Your task to perform on an android device: Empty the shopping cart on bestbuy. Search for "lenovo thinkpad" on bestbuy, select the first entry, and add it to the cart. Image 0: 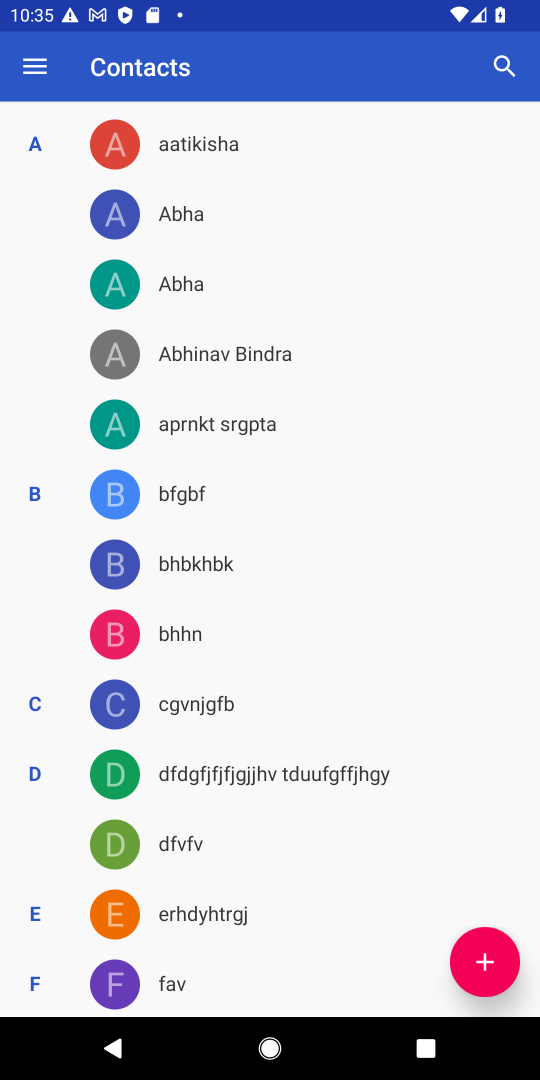
Step 0: press home button
Your task to perform on an android device: Empty the shopping cart on bestbuy. Search for "lenovo thinkpad" on bestbuy, select the first entry, and add it to the cart. Image 1: 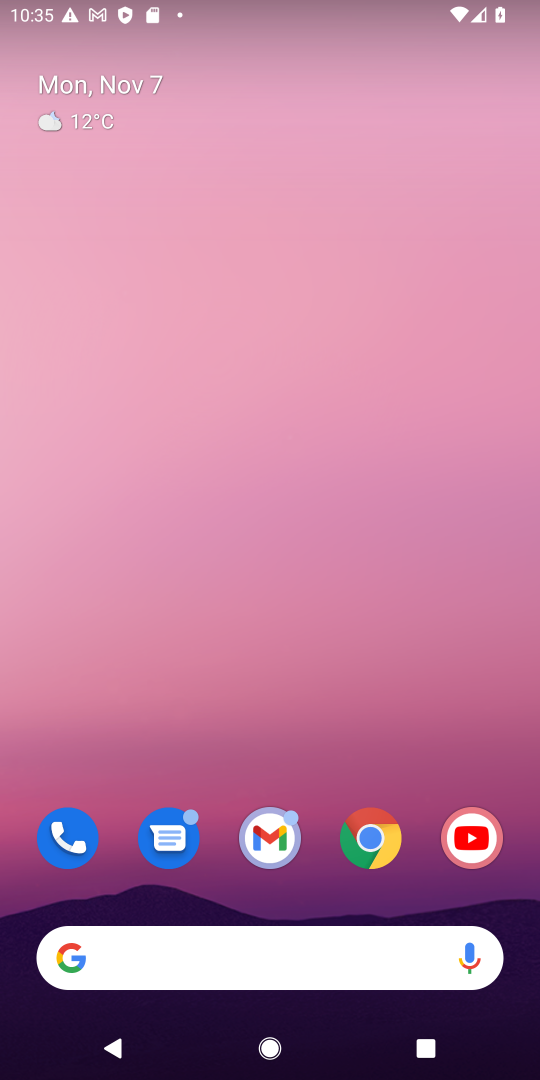
Step 1: click (382, 824)
Your task to perform on an android device: Empty the shopping cart on bestbuy. Search for "lenovo thinkpad" on bestbuy, select the first entry, and add it to the cart. Image 2: 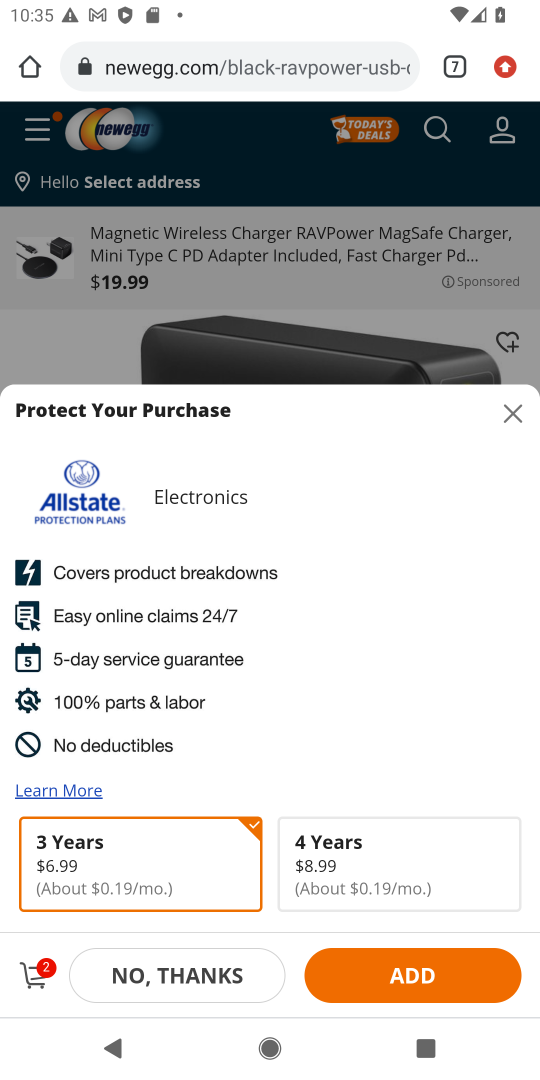
Step 2: click (517, 404)
Your task to perform on an android device: Empty the shopping cart on bestbuy. Search for "lenovo thinkpad" on bestbuy, select the first entry, and add it to the cart. Image 3: 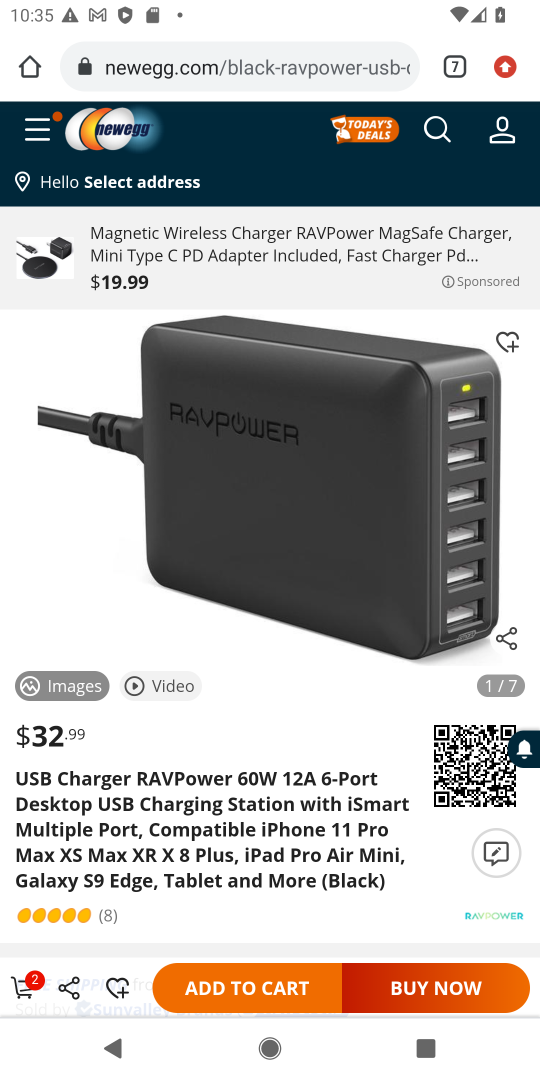
Step 3: click (461, 70)
Your task to perform on an android device: Empty the shopping cart on bestbuy. Search for "lenovo thinkpad" on bestbuy, select the first entry, and add it to the cart. Image 4: 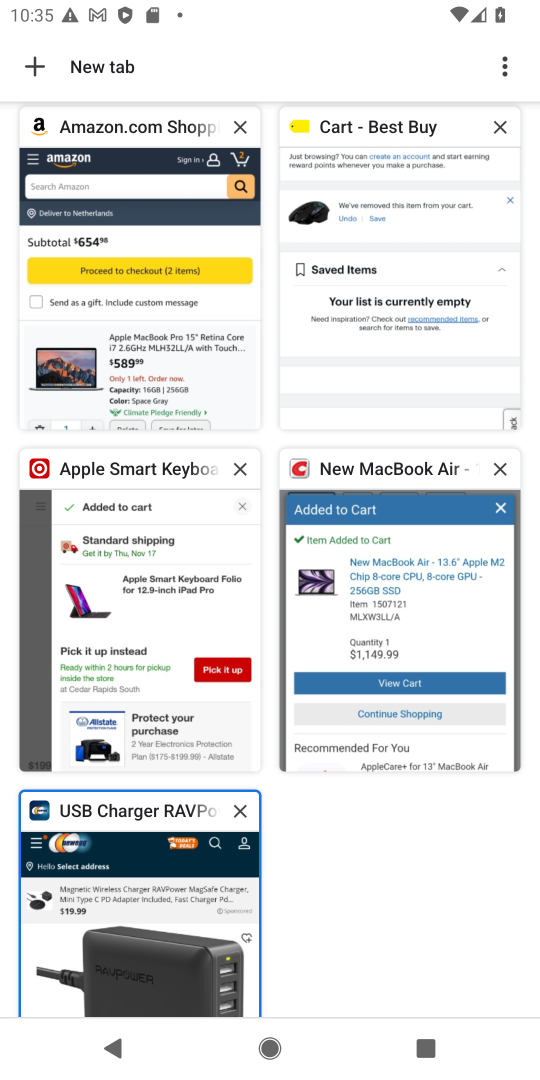
Step 4: click (391, 258)
Your task to perform on an android device: Empty the shopping cart on bestbuy. Search for "lenovo thinkpad" on bestbuy, select the first entry, and add it to the cart. Image 5: 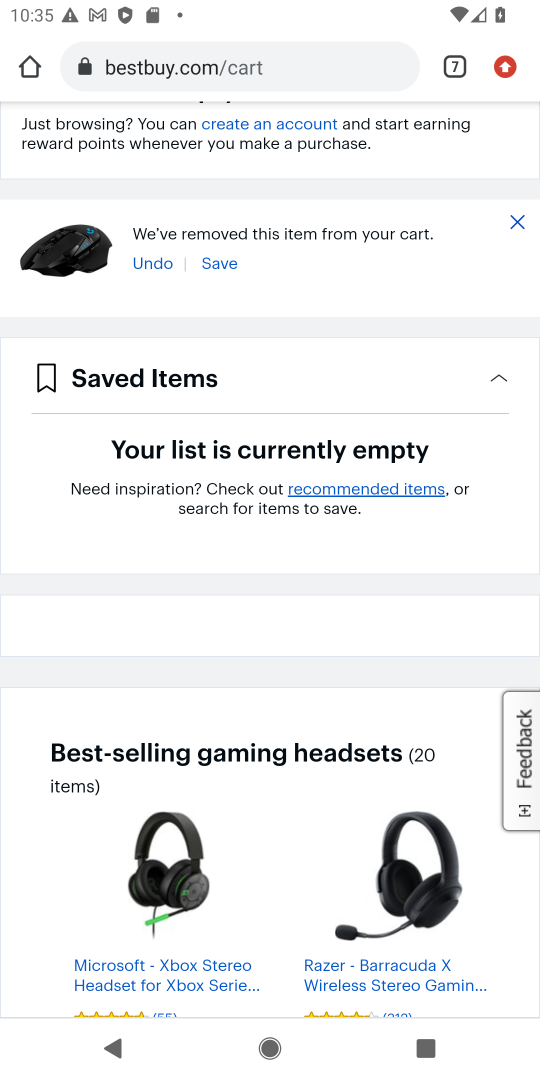
Step 5: drag from (381, 273) to (330, 804)
Your task to perform on an android device: Empty the shopping cart on bestbuy. Search for "lenovo thinkpad" on bestbuy, select the first entry, and add it to the cart. Image 6: 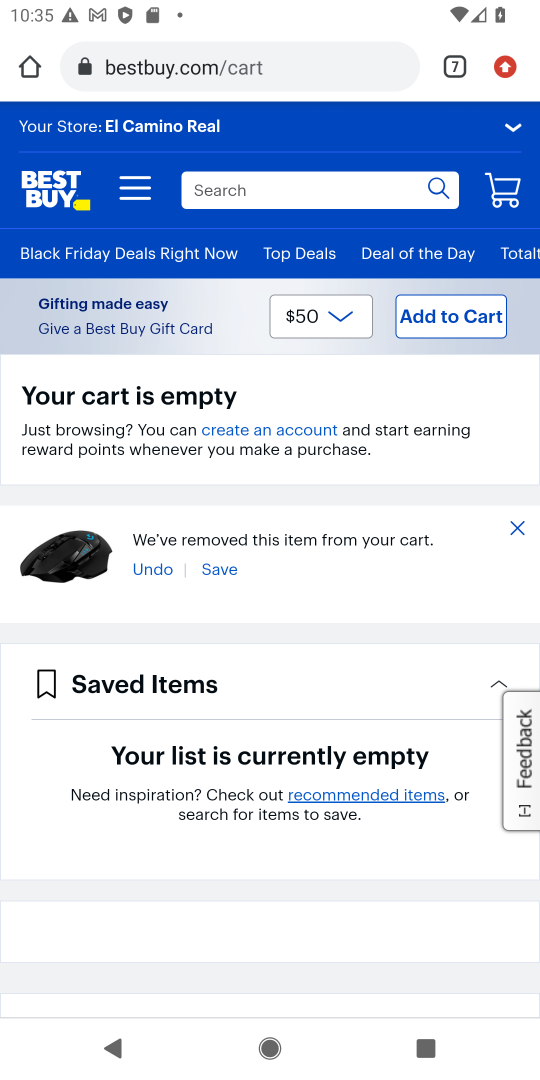
Step 6: click (197, 187)
Your task to perform on an android device: Empty the shopping cart on bestbuy. Search for "lenovo thinkpad" on bestbuy, select the first entry, and add it to the cart. Image 7: 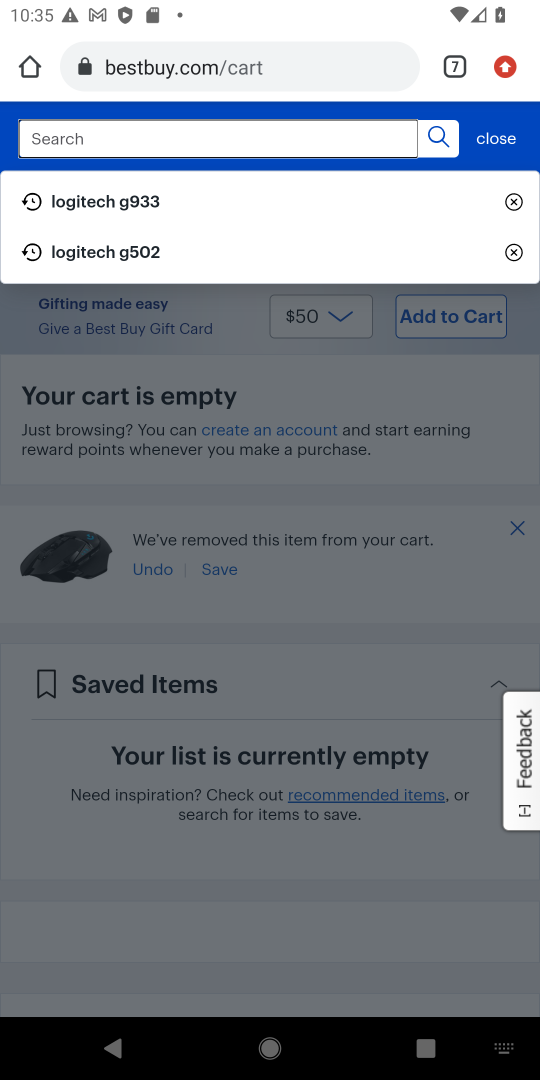
Step 7: type "lenovo thinkpad"
Your task to perform on an android device: Empty the shopping cart on bestbuy. Search for "lenovo thinkpad" on bestbuy, select the first entry, and add it to the cart. Image 8: 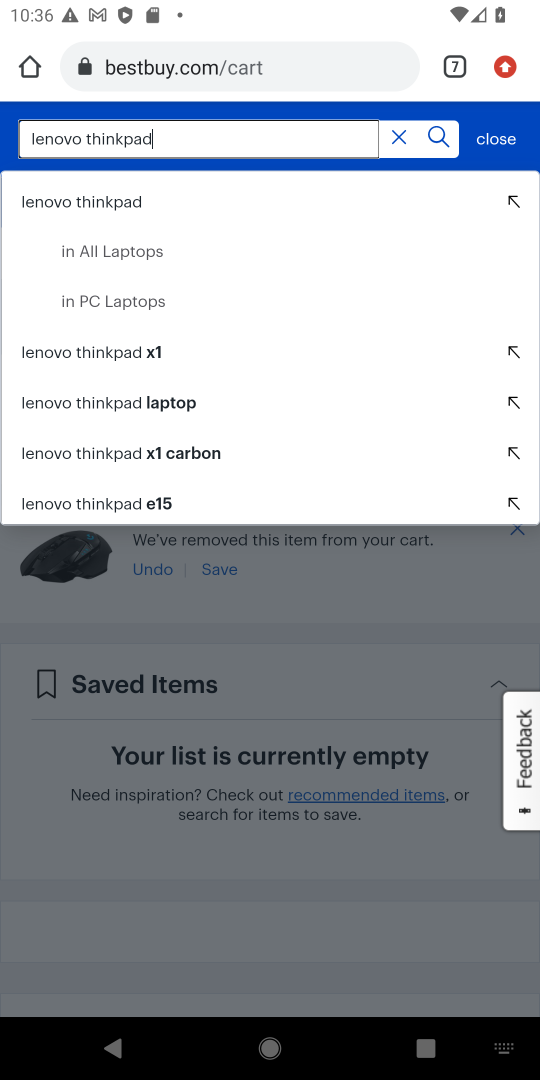
Step 8: click (114, 195)
Your task to perform on an android device: Empty the shopping cart on bestbuy. Search for "lenovo thinkpad" on bestbuy, select the first entry, and add it to the cart. Image 9: 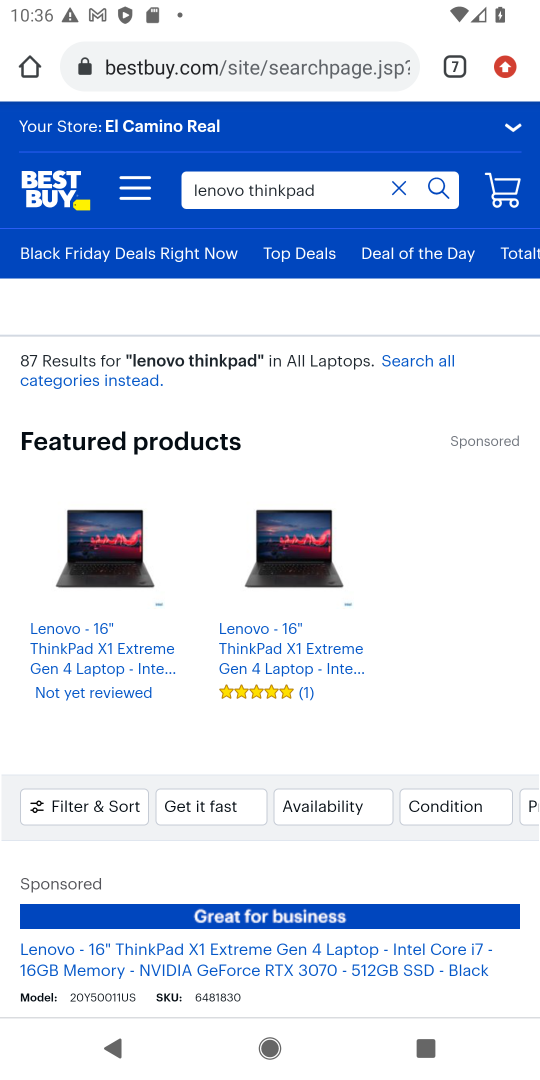
Step 9: drag from (270, 863) to (293, 478)
Your task to perform on an android device: Empty the shopping cart on bestbuy. Search for "lenovo thinkpad" on bestbuy, select the first entry, and add it to the cart. Image 10: 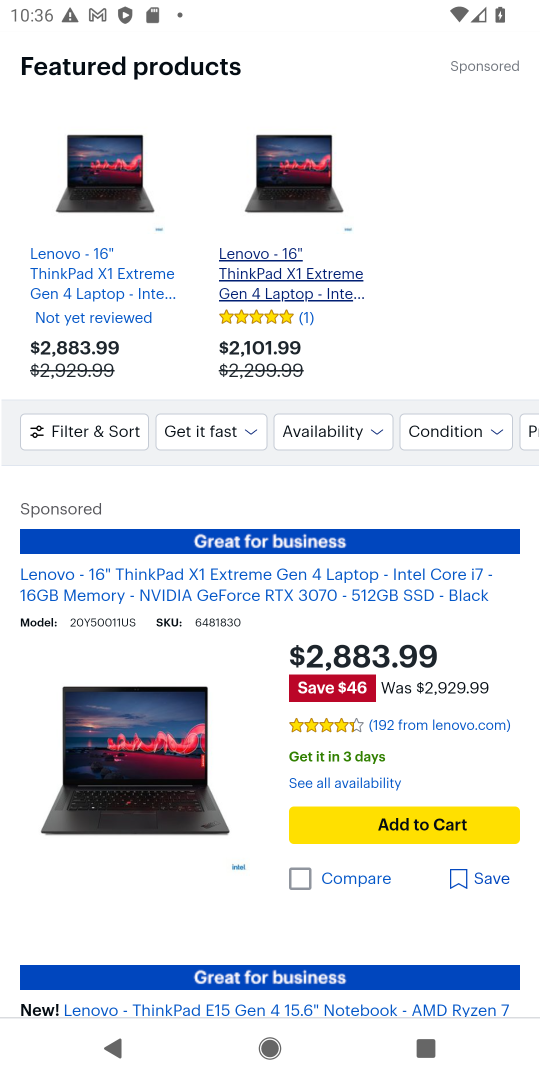
Step 10: click (394, 817)
Your task to perform on an android device: Empty the shopping cart on bestbuy. Search for "lenovo thinkpad" on bestbuy, select the first entry, and add it to the cart. Image 11: 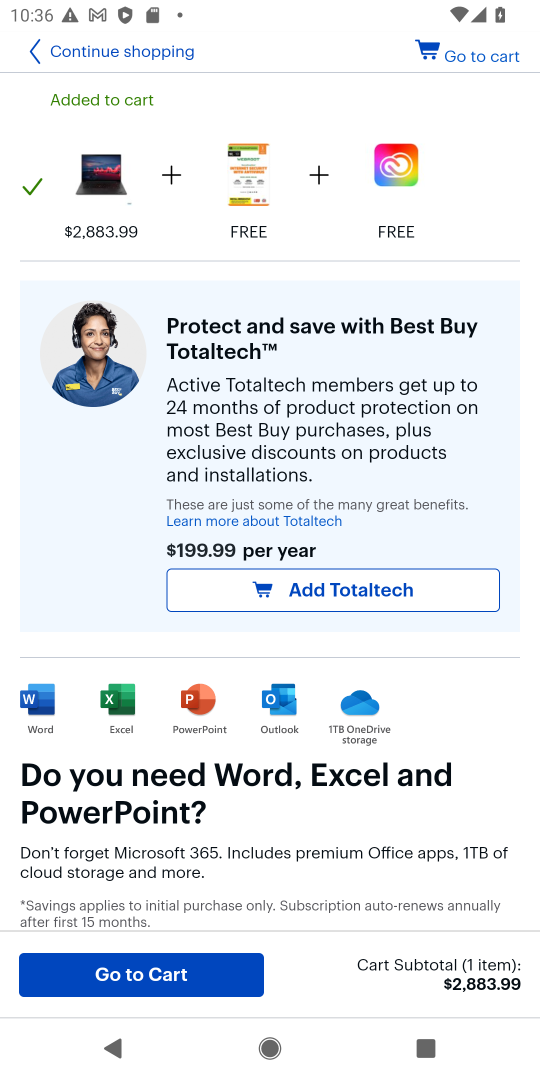
Step 11: task complete